Your task to perform on an android device: Open my contact list Image 0: 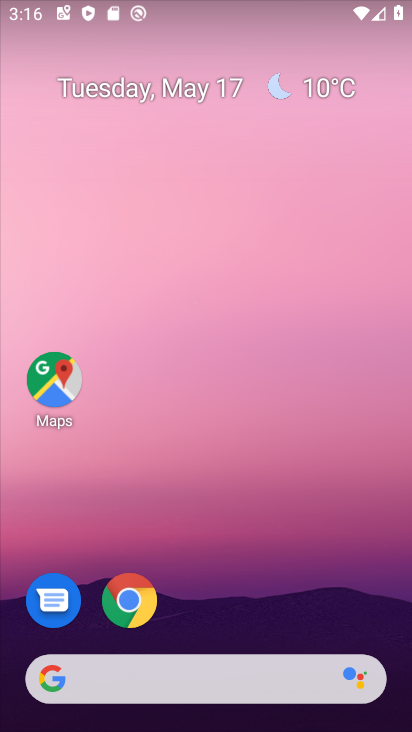
Step 0: drag from (199, 625) to (205, 69)
Your task to perform on an android device: Open my contact list Image 1: 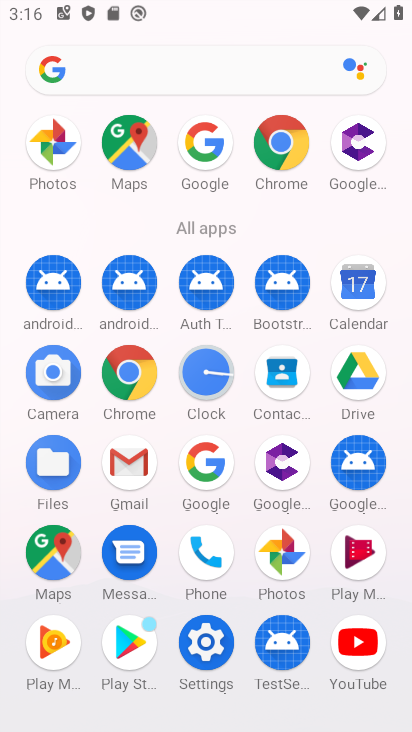
Step 1: click (288, 386)
Your task to perform on an android device: Open my contact list Image 2: 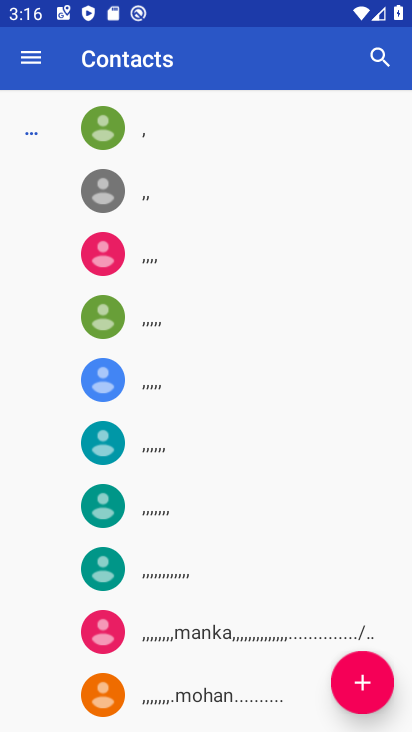
Step 2: task complete